Your task to perform on an android device: Clear all items from cart on costco. Add logitech g502 to the cart on costco Image 0: 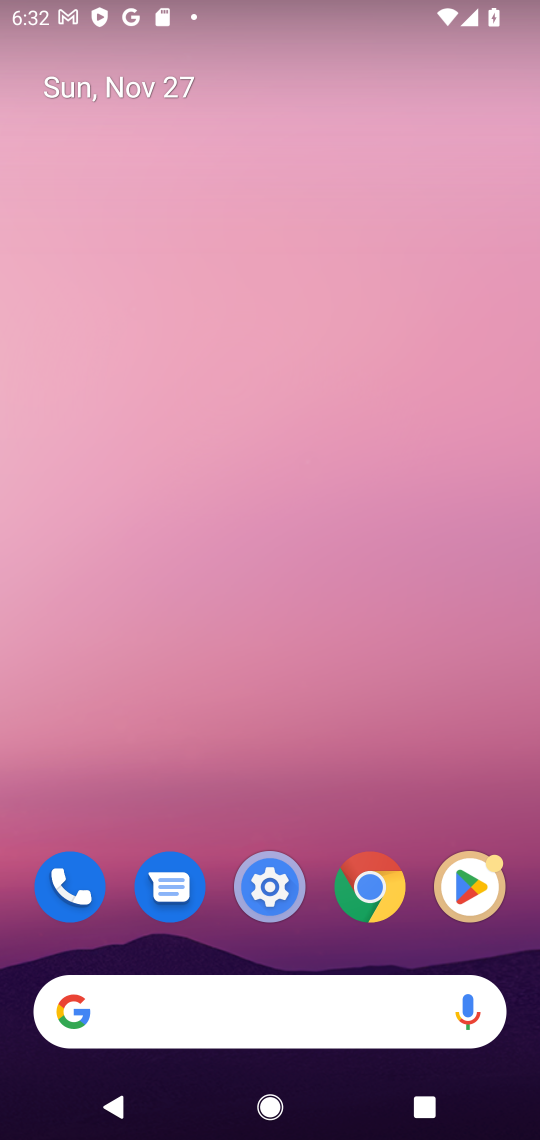
Step 0: click (356, 993)
Your task to perform on an android device: Clear all items from cart on costco. Add logitech g502 to the cart on costco Image 1: 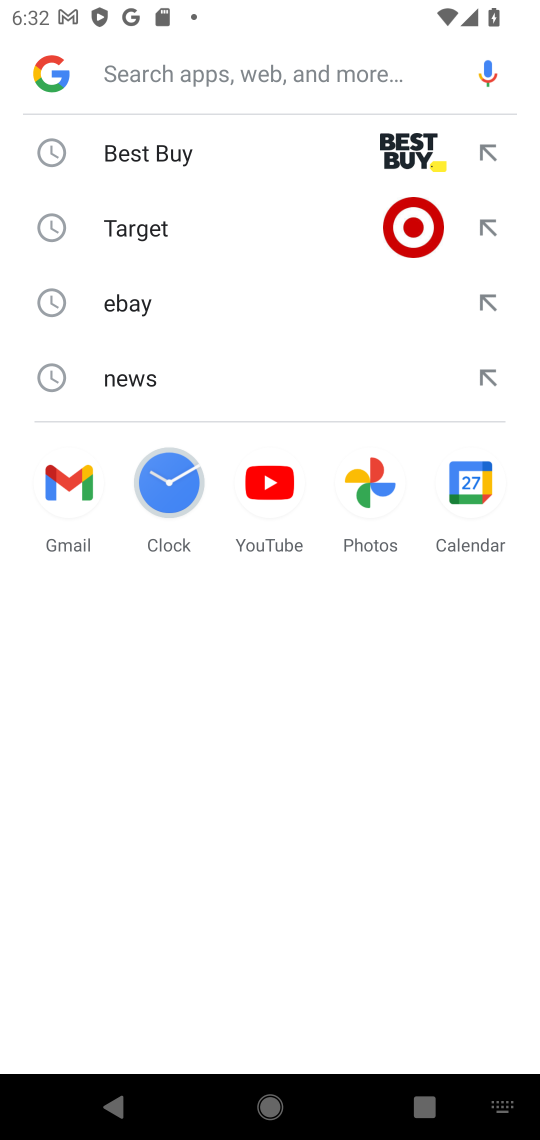
Step 1: type "costco"
Your task to perform on an android device: Clear all items from cart on costco. Add logitech g502 to the cart on costco Image 2: 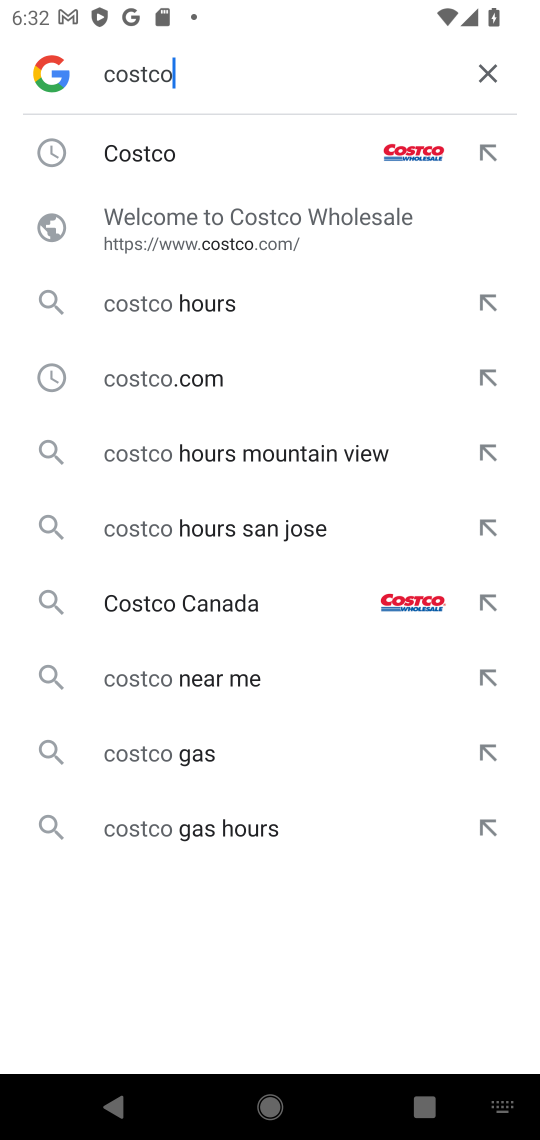
Step 2: click (250, 158)
Your task to perform on an android device: Clear all items from cart on costco. Add logitech g502 to the cart on costco Image 3: 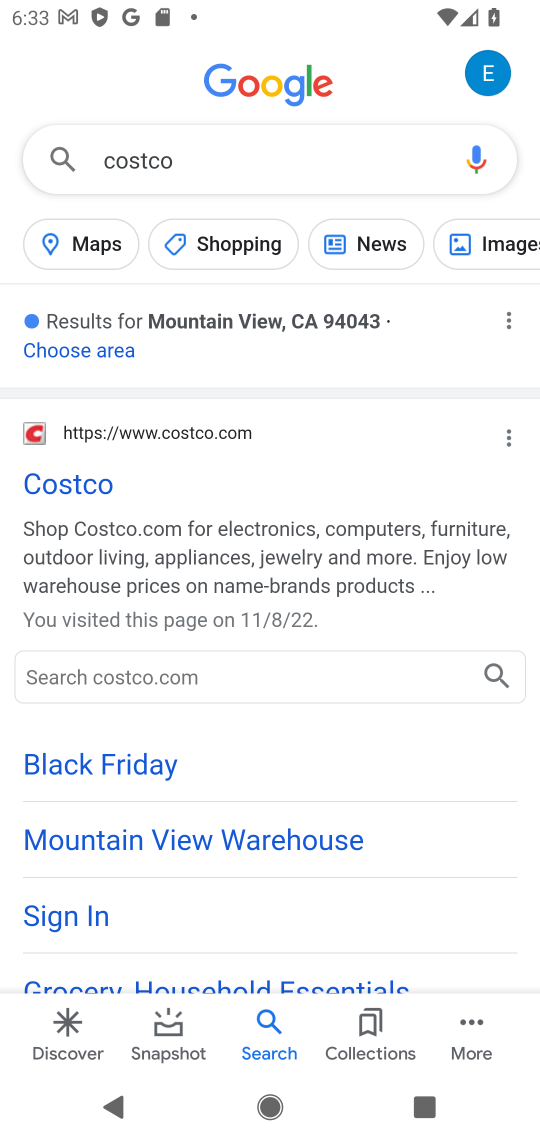
Step 3: click (154, 506)
Your task to perform on an android device: Clear all items from cart on costco. Add logitech g502 to the cart on costco Image 4: 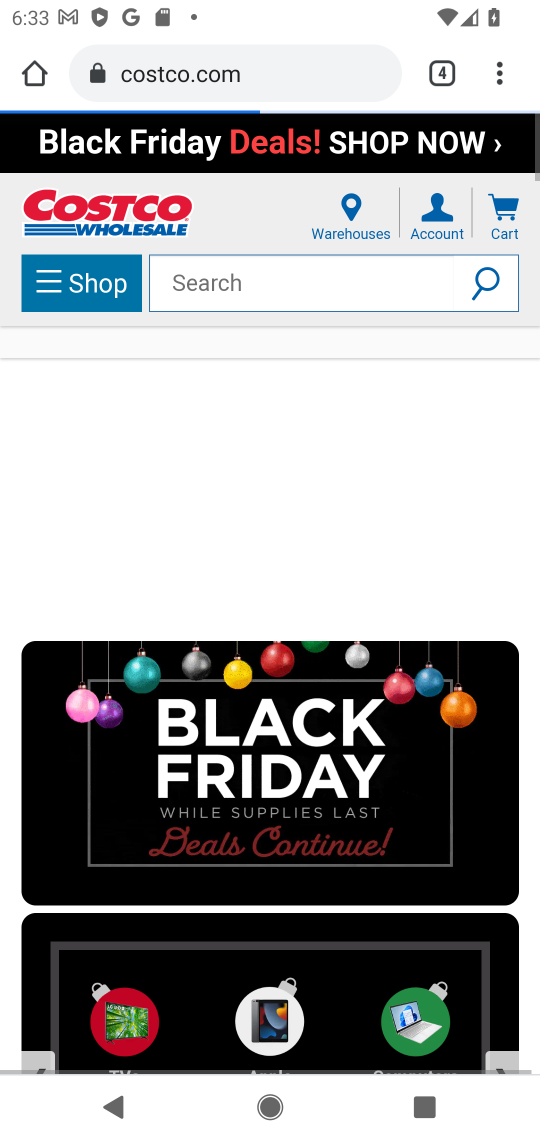
Step 4: click (263, 295)
Your task to perform on an android device: Clear all items from cart on costco. Add logitech g502 to the cart on costco Image 5: 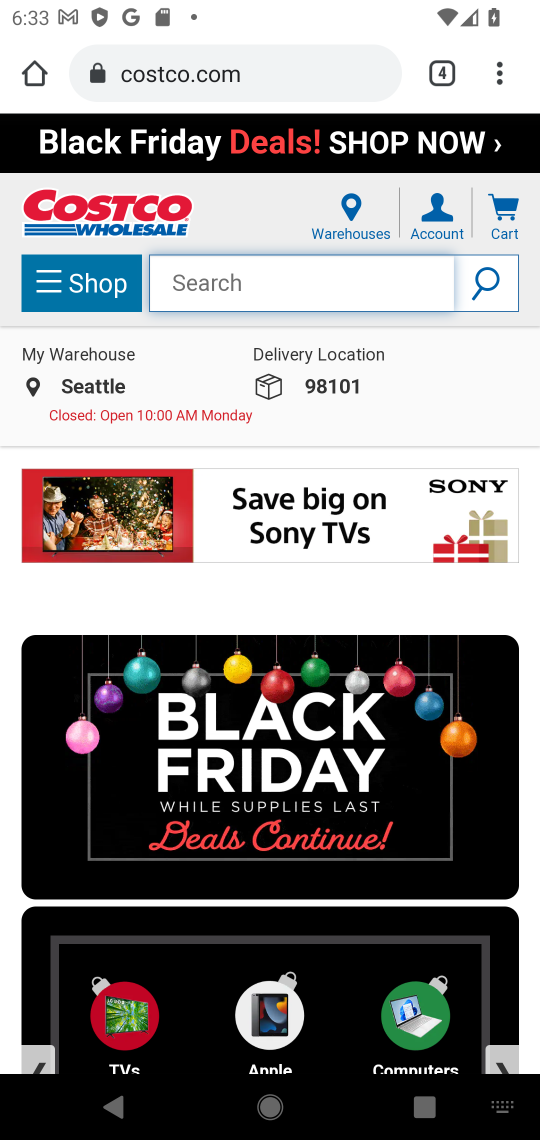
Step 5: type "logitch g502"
Your task to perform on an android device: Clear all items from cart on costco. Add logitech g502 to the cart on costco Image 6: 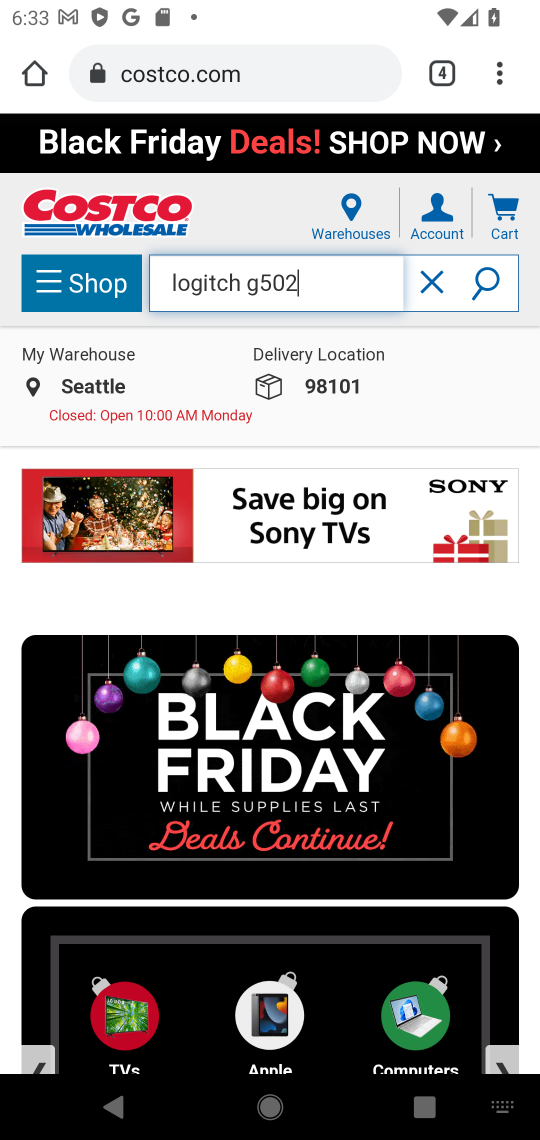
Step 6: click (465, 299)
Your task to perform on an android device: Clear all items from cart on costco. Add logitech g502 to the cart on costco Image 7: 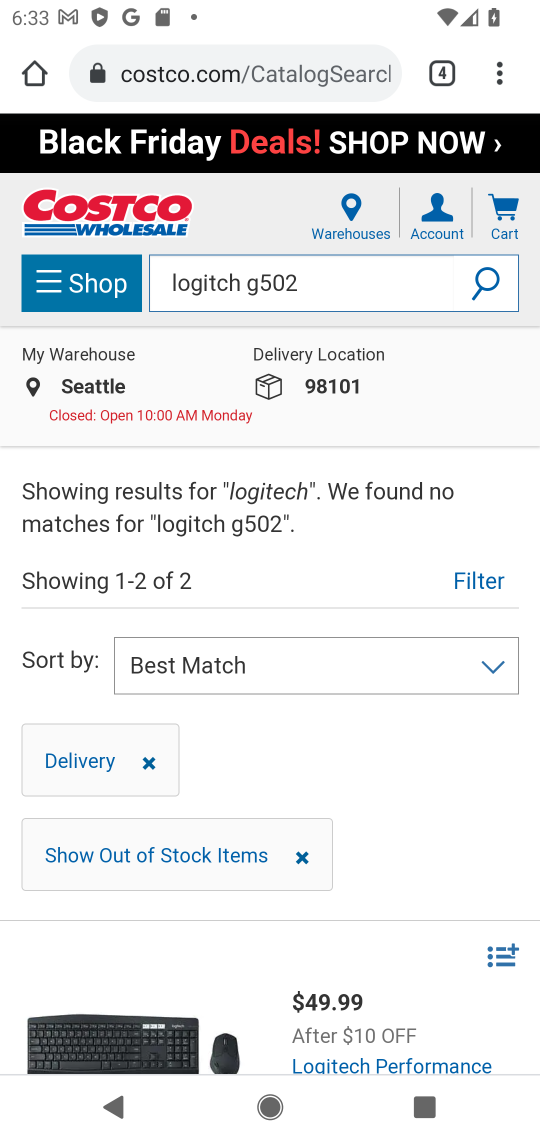
Step 7: drag from (302, 793) to (290, 573)
Your task to perform on an android device: Clear all items from cart on costco. Add logitech g502 to the cart on costco Image 8: 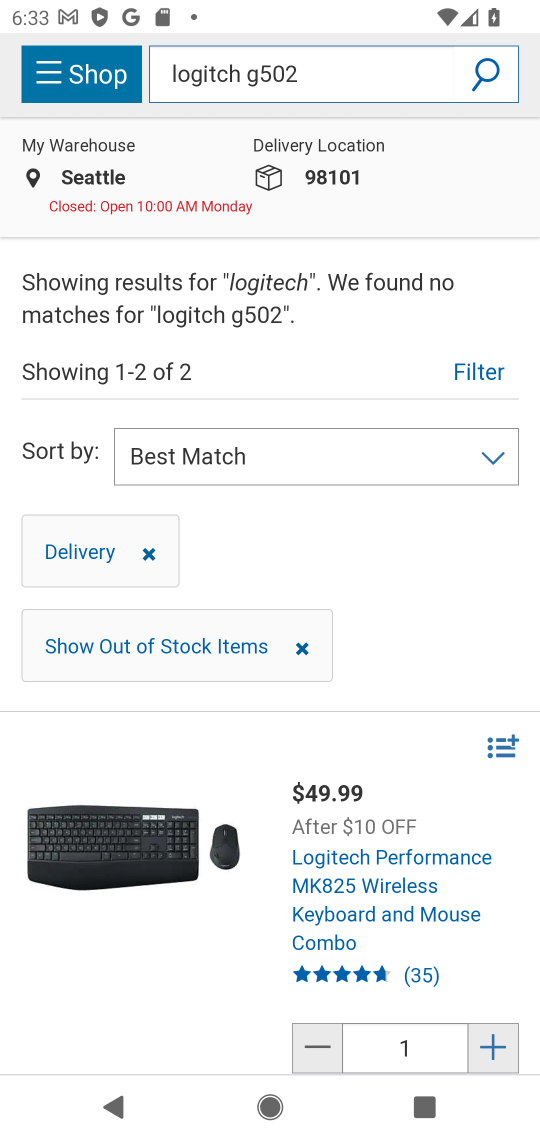
Step 8: click (378, 832)
Your task to perform on an android device: Clear all items from cart on costco. Add logitech g502 to the cart on costco Image 9: 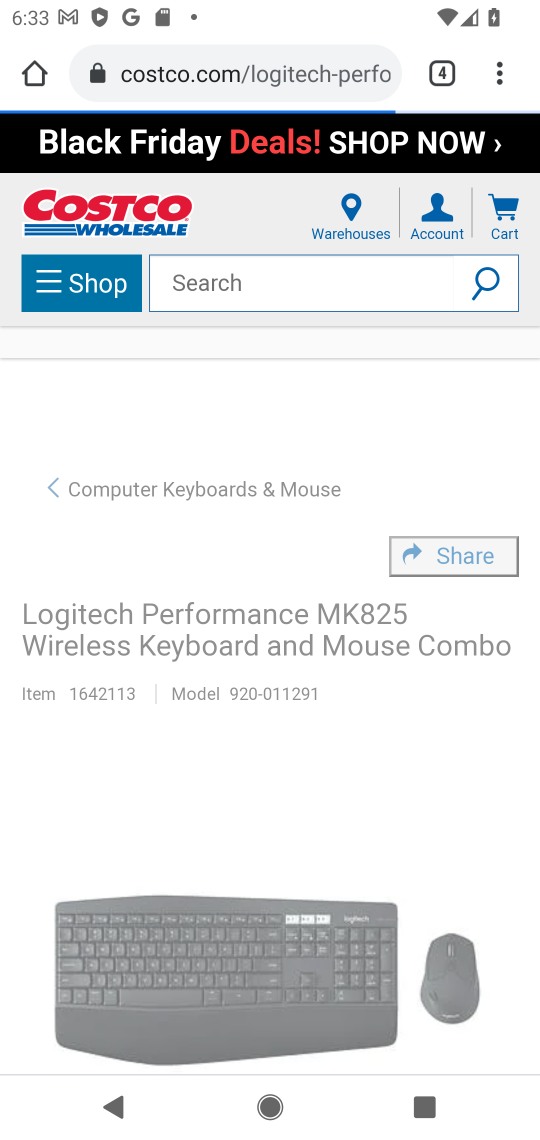
Step 9: drag from (378, 832) to (376, 639)
Your task to perform on an android device: Clear all items from cart on costco. Add logitech g502 to the cart on costco Image 10: 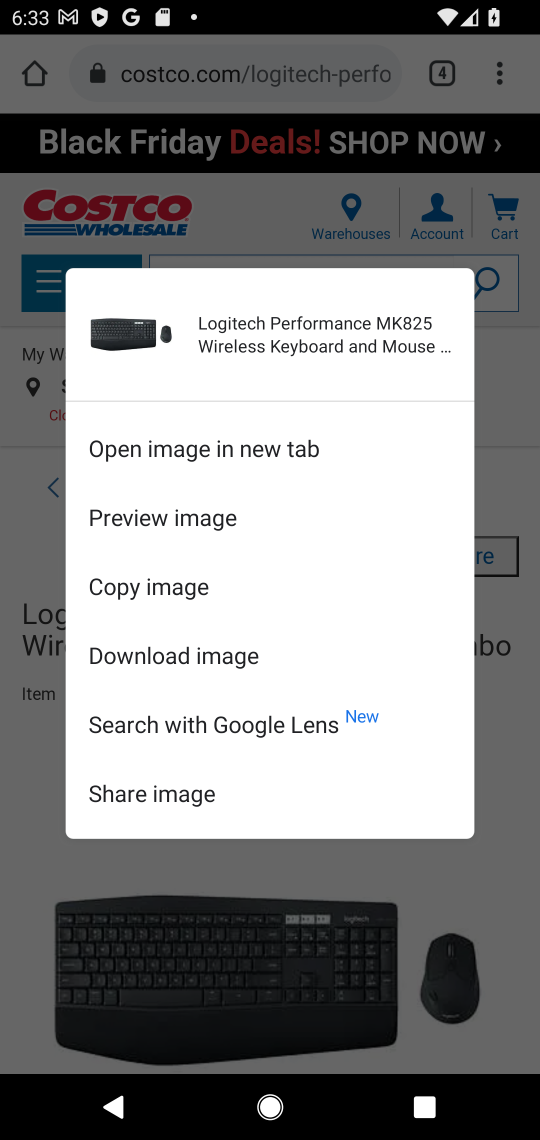
Step 10: click (421, 948)
Your task to perform on an android device: Clear all items from cart on costco. Add logitech g502 to the cart on costco Image 11: 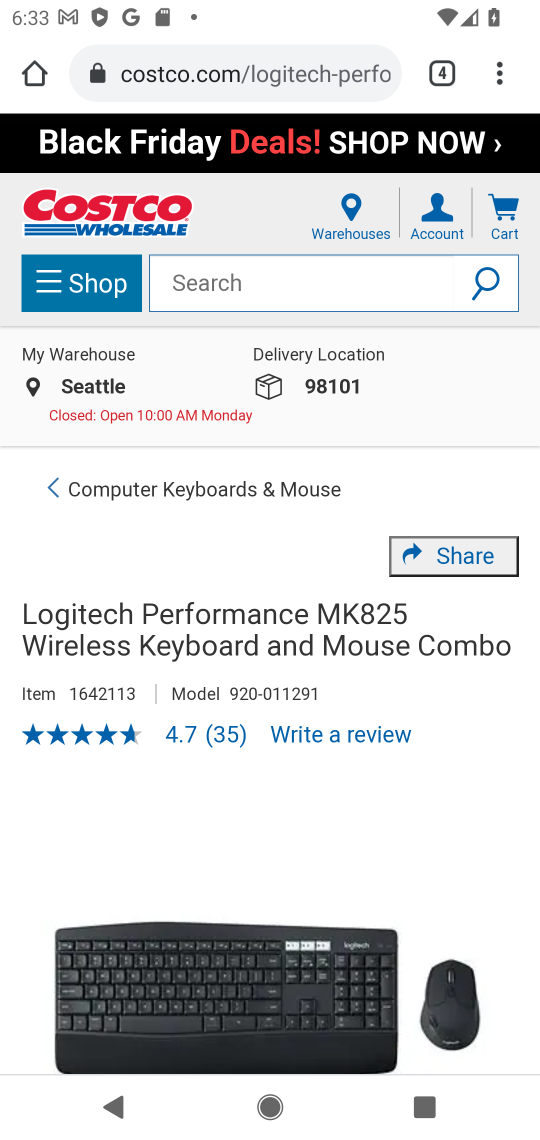
Step 11: drag from (350, 856) to (350, 575)
Your task to perform on an android device: Clear all items from cart on costco. Add logitech g502 to the cart on costco Image 12: 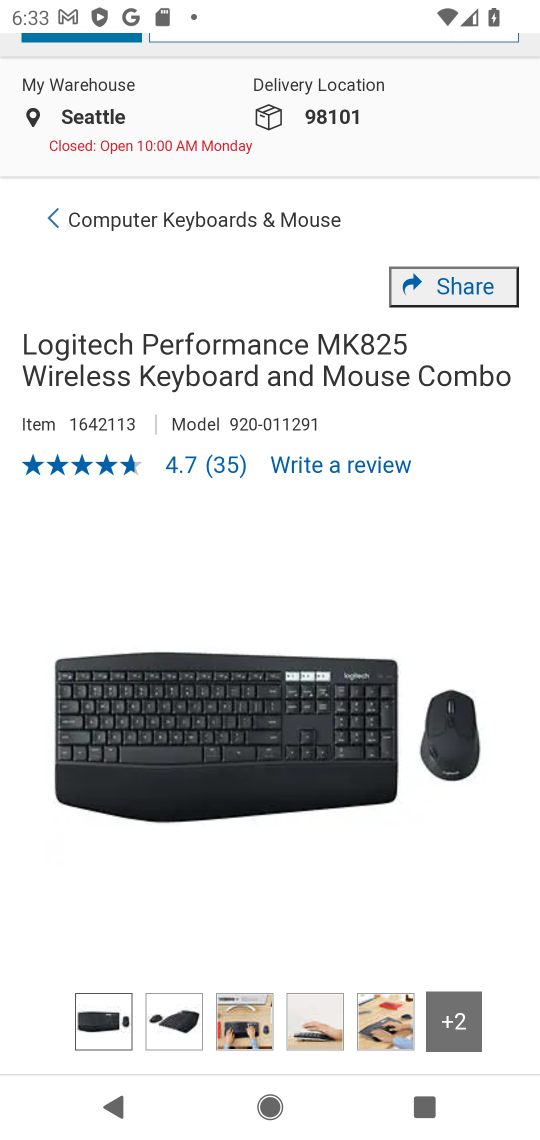
Step 12: drag from (325, 851) to (324, 491)
Your task to perform on an android device: Clear all items from cart on costco. Add logitech g502 to the cart on costco Image 13: 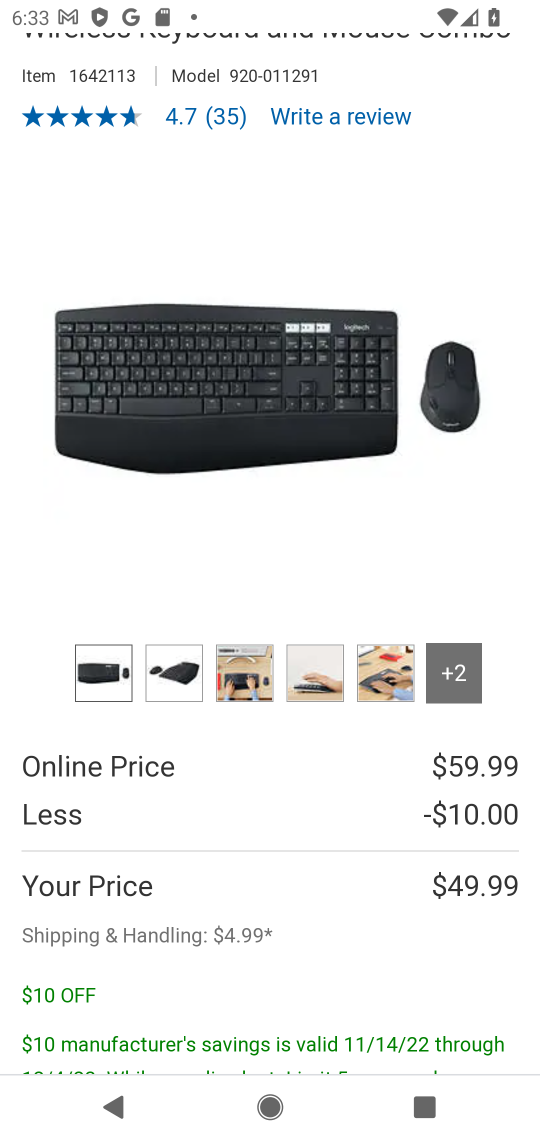
Step 13: drag from (329, 758) to (337, 207)
Your task to perform on an android device: Clear all items from cart on costco. Add logitech g502 to the cart on costco Image 14: 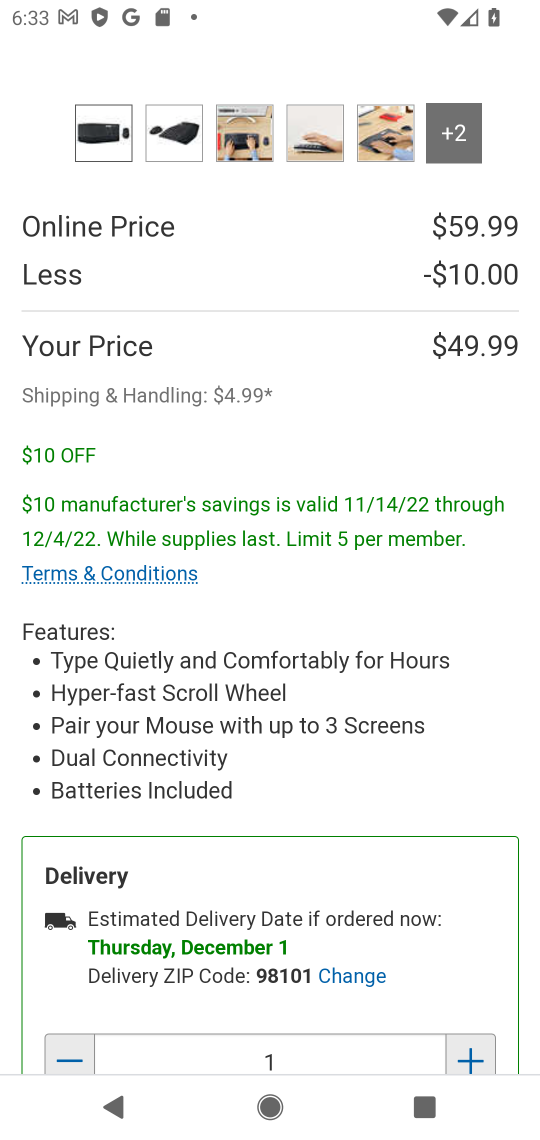
Step 14: drag from (445, 793) to (398, 419)
Your task to perform on an android device: Clear all items from cart on costco. Add logitech g502 to the cart on costco Image 15: 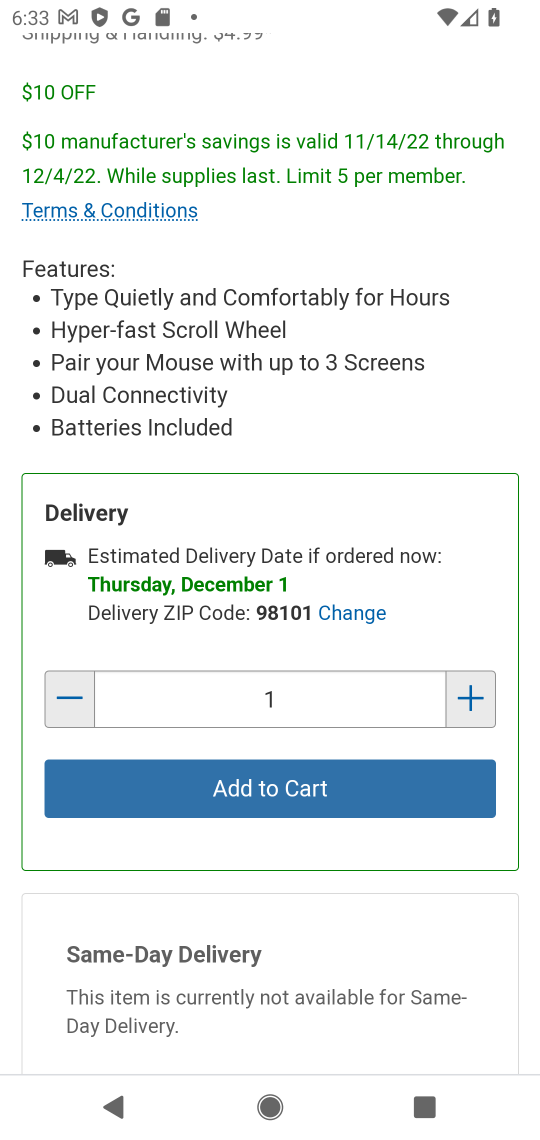
Step 15: click (370, 761)
Your task to perform on an android device: Clear all items from cart on costco. Add logitech g502 to the cart on costco Image 16: 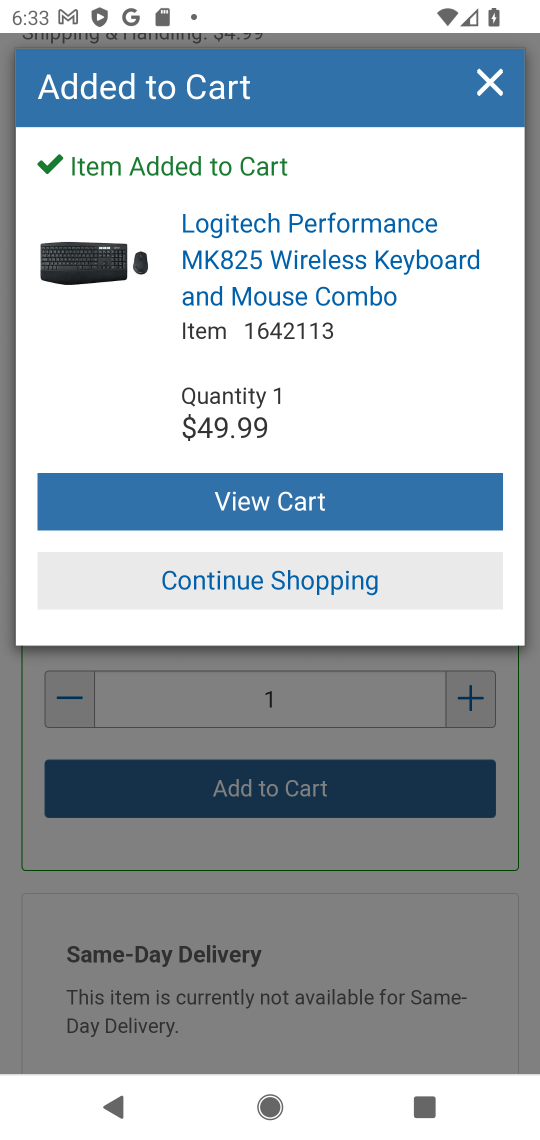
Step 16: task complete